Your task to perform on an android device: turn off notifications in google photos Image 0: 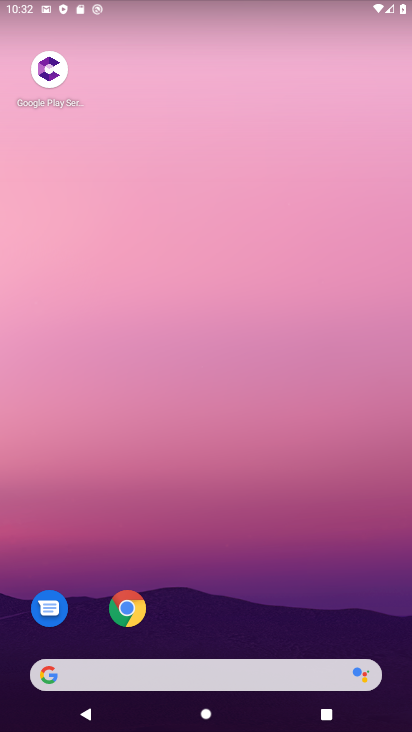
Step 0: drag from (191, 631) to (164, 108)
Your task to perform on an android device: turn off notifications in google photos Image 1: 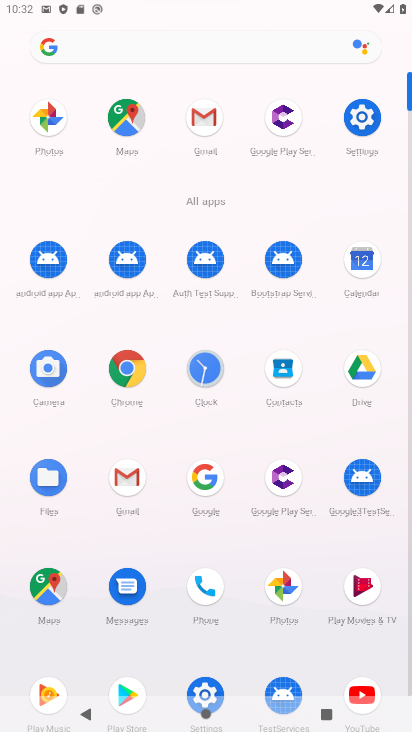
Step 1: click (57, 102)
Your task to perform on an android device: turn off notifications in google photos Image 2: 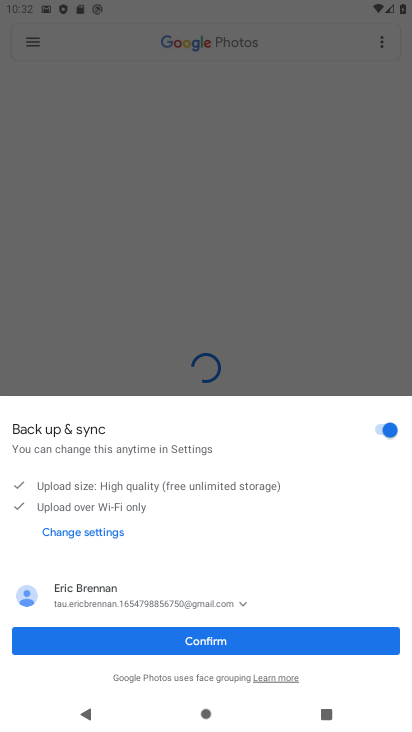
Step 2: click (211, 639)
Your task to perform on an android device: turn off notifications in google photos Image 3: 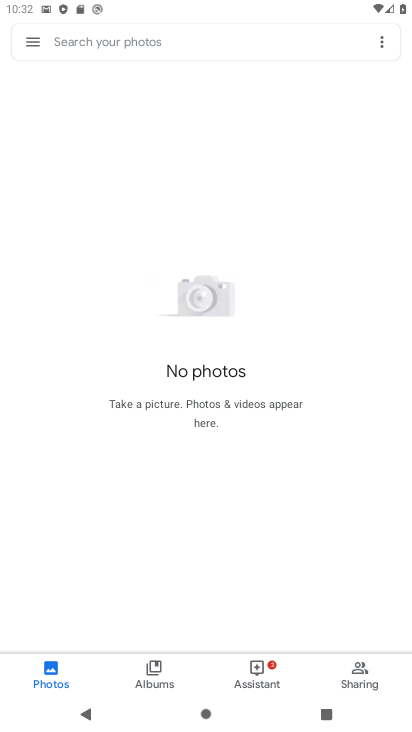
Step 3: click (30, 26)
Your task to perform on an android device: turn off notifications in google photos Image 4: 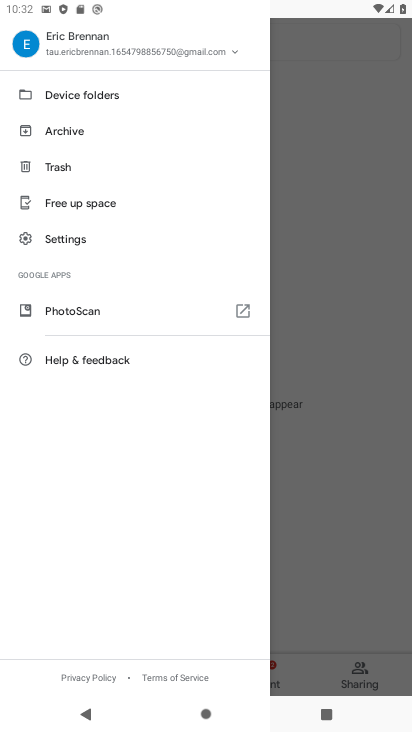
Step 4: click (115, 243)
Your task to perform on an android device: turn off notifications in google photos Image 5: 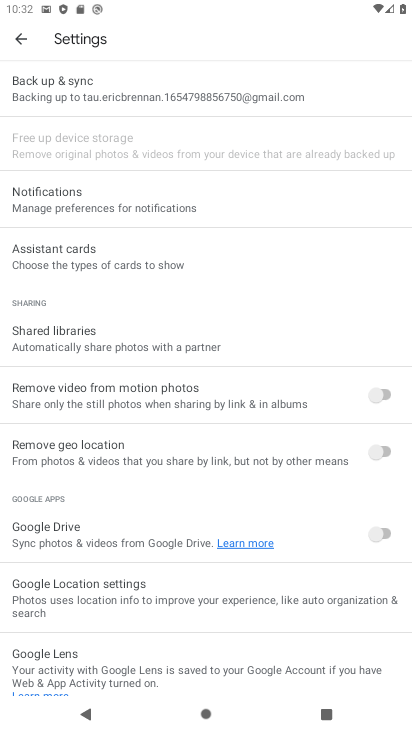
Step 5: click (100, 195)
Your task to perform on an android device: turn off notifications in google photos Image 6: 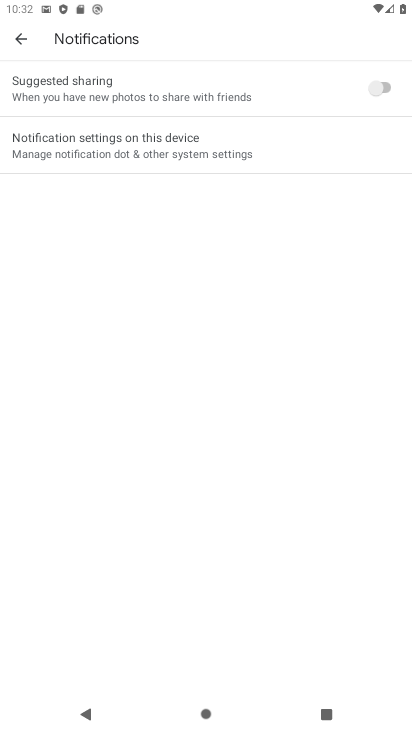
Step 6: click (222, 135)
Your task to perform on an android device: turn off notifications in google photos Image 7: 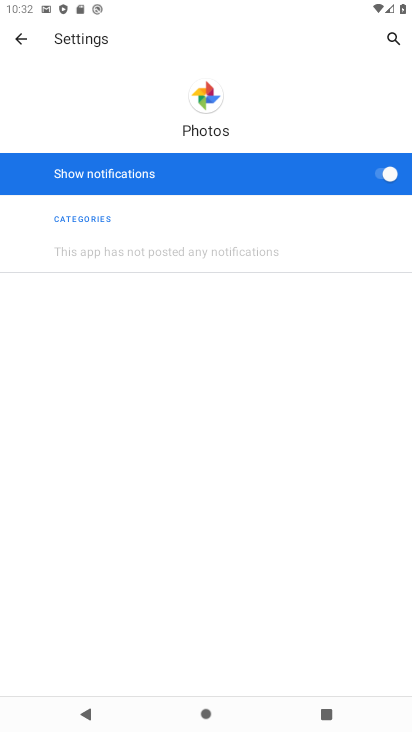
Step 7: click (385, 169)
Your task to perform on an android device: turn off notifications in google photos Image 8: 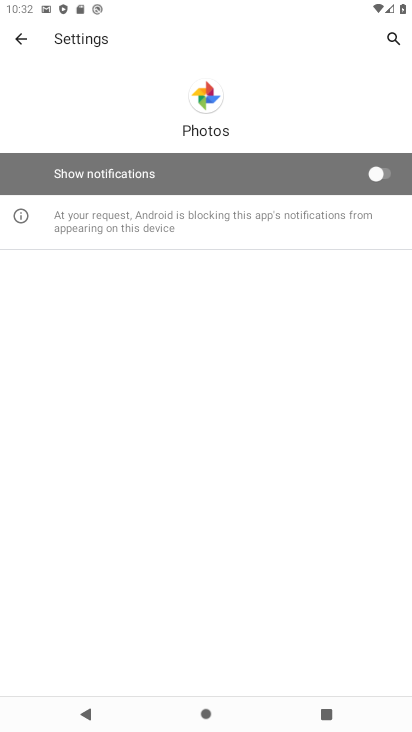
Step 8: task complete